Your task to perform on an android device: toggle priority inbox in the gmail app Image 0: 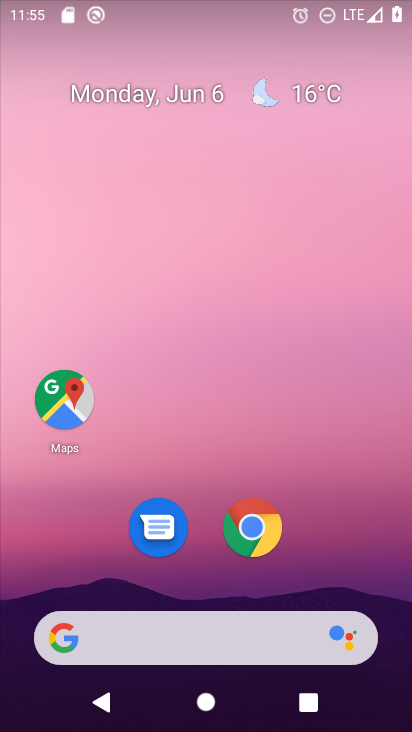
Step 0: drag from (361, 569) to (351, 80)
Your task to perform on an android device: toggle priority inbox in the gmail app Image 1: 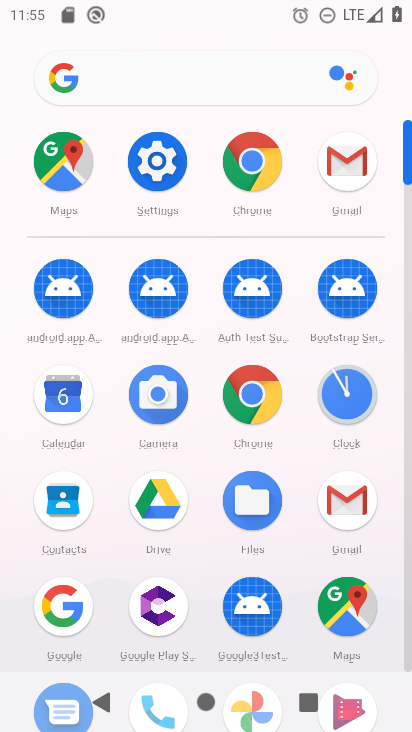
Step 1: click (354, 510)
Your task to perform on an android device: toggle priority inbox in the gmail app Image 2: 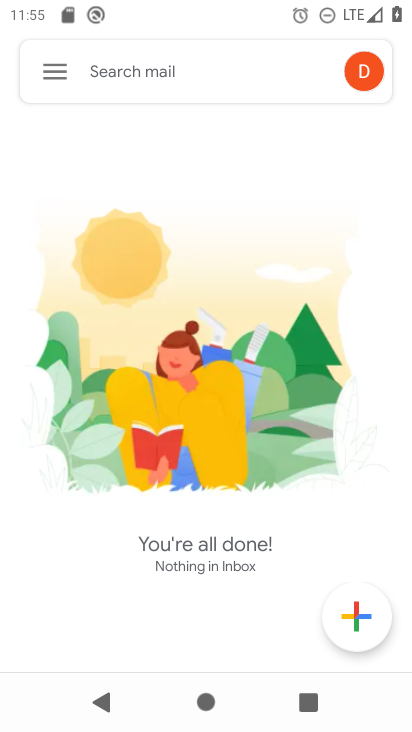
Step 2: click (48, 68)
Your task to perform on an android device: toggle priority inbox in the gmail app Image 3: 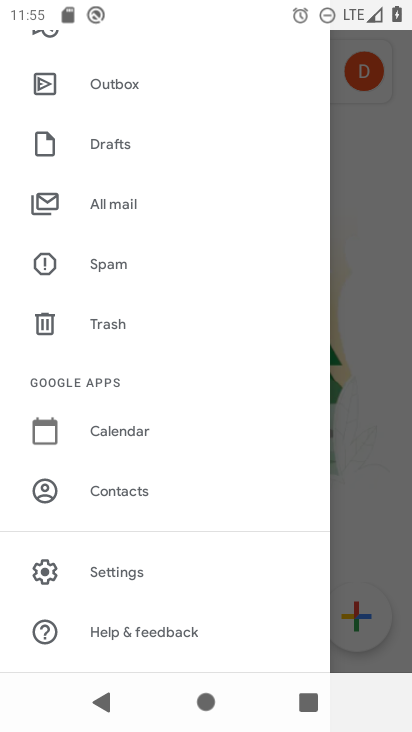
Step 3: drag from (237, 197) to (258, 335)
Your task to perform on an android device: toggle priority inbox in the gmail app Image 4: 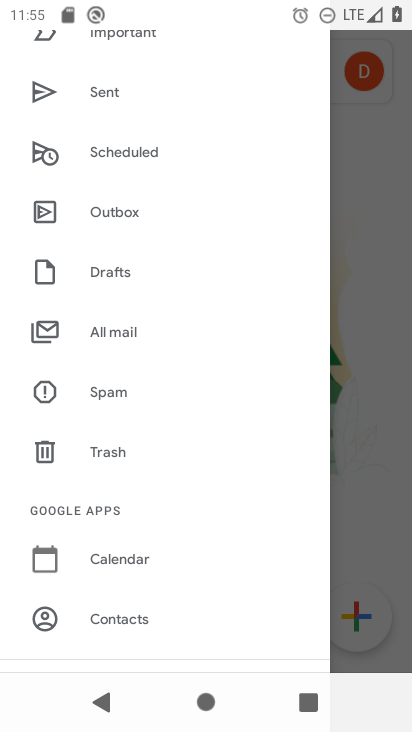
Step 4: drag from (253, 133) to (256, 320)
Your task to perform on an android device: toggle priority inbox in the gmail app Image 5: 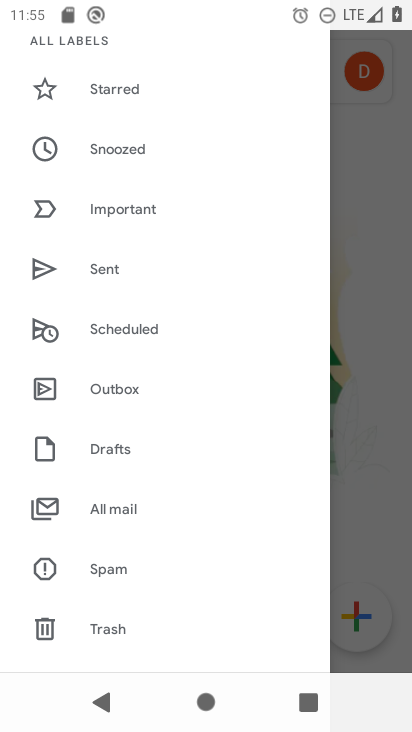
Step 5: drag from (240, 165) to (244, 340)
Your task to perform on an android device: toggle priority inbox in the gmail app Image 6: 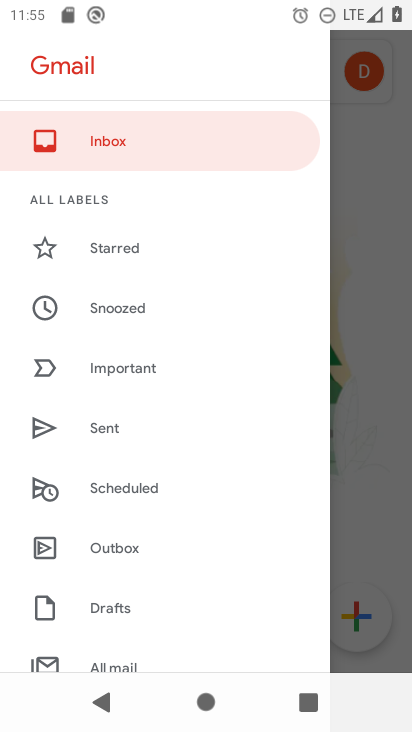
Step 6: drag from (230, 89) to (228, 334)
Your task to perform on an android device: toggle priority inbox in the gmail app Image 7: 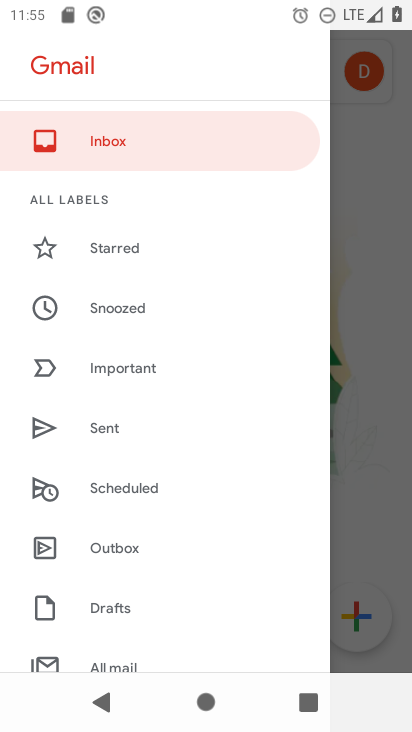
Step 7: drag from (234, 399) to (233, 220)
Your task to perform on an android device: toggle priority inbox in the gmail app Image 8: 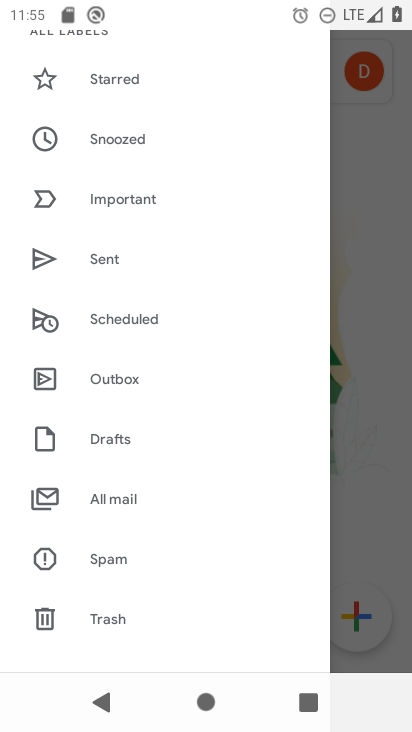
Step 8: drag from (232, 467) to (228, 305)
Your task to perform on an android device: toggle priority inbox in the gmail app Image 9: 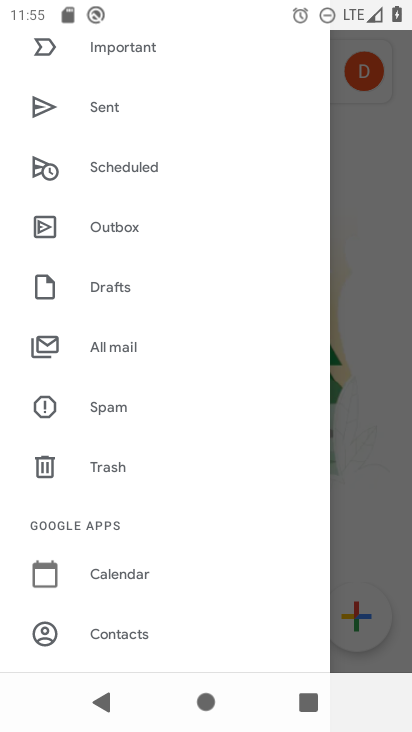
Step 9: drag from (240, 532) to (235, 424)
Your task to perform on an android device: toggle priority inbox in the gmail app Image 10: 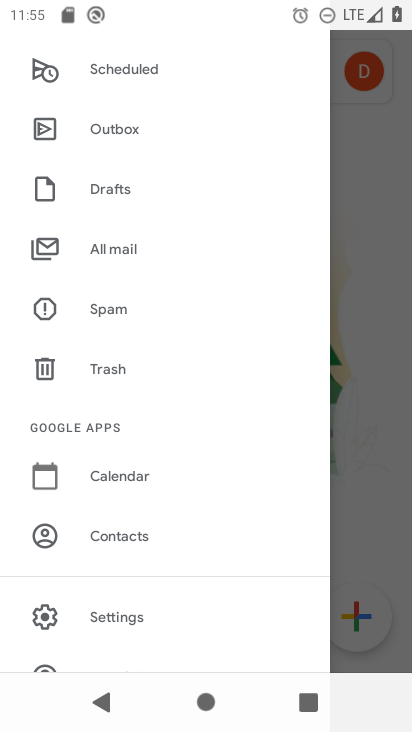
Step 10: click (193, 628)
Your task to perform on an android device: toggle priority inbox in the gmail app Image 11: 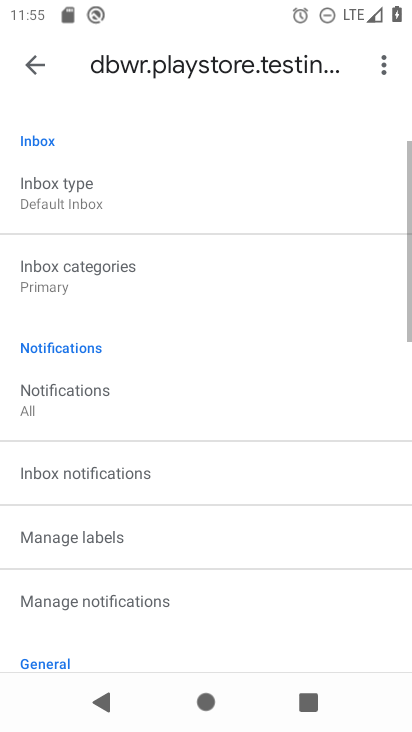
Step 11: drag from (237, 433) to (240, 326)
Your task to perform on an android device: toggle priority inbox in the gmail app Image 12: 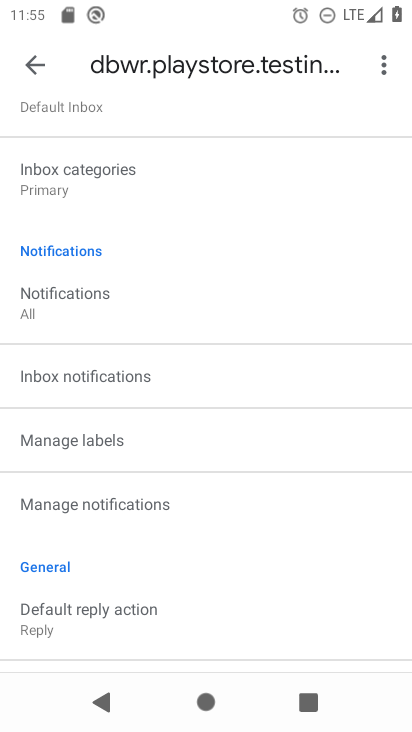
Step 12: drag from (265, 434) to (261, 316)
Your task to perform on an android device: toggle priority inbox in the gmail app Image 13: 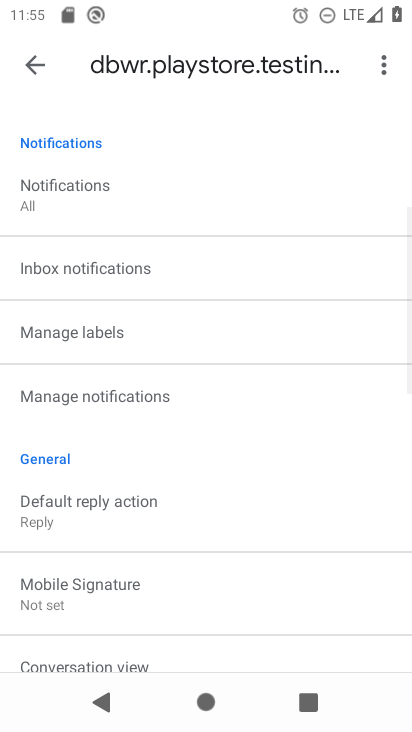
Step 13: drag from (262, 450) to (265, 307)
Your task to perform on an android device: toggle priority inbox in the gmail app Image 14: 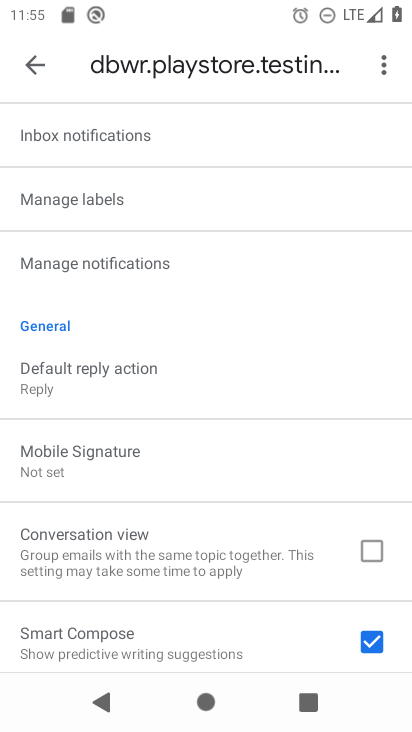
Step 14: drag from (275, 215) to (309, 389)
Your task to perform on an android device: toggle priority inbox in the gmail app Image 15: 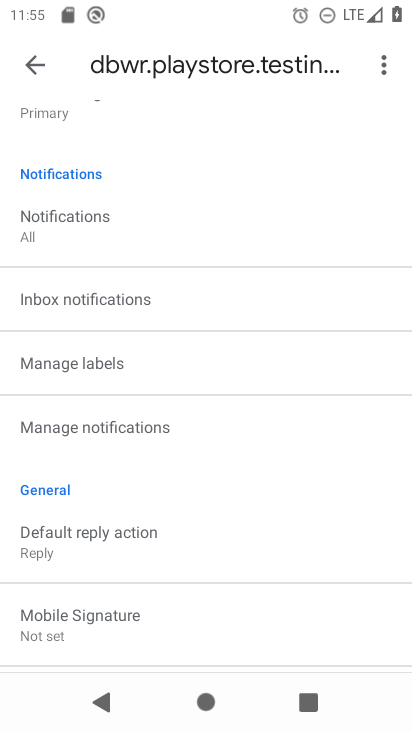
Step 15: drag from (289, 221) to (291, 366)
Your task to perform on an android device: toggle priority inbox in the gmail app Image 16: 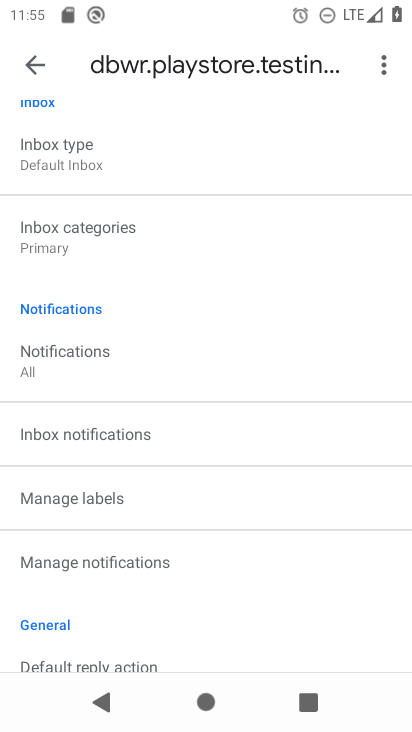
Step 16: drag from (272, 196) to (280, 351)
Your task to perform on an android device: toggle priority inbox in the gmail app Image 17: 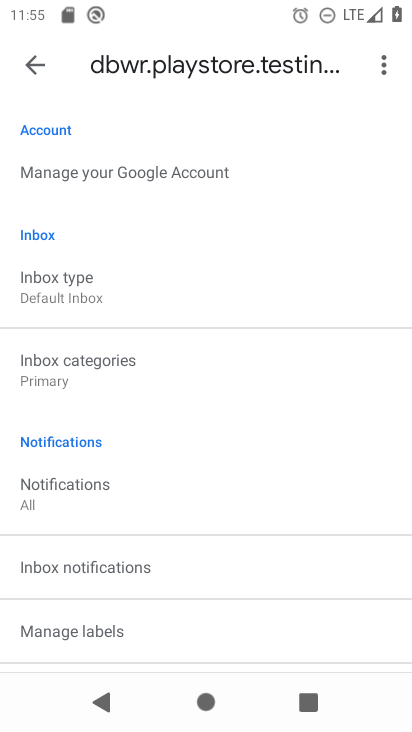
Step 17: click (136, 314)
Your task to perform on an android device: toggle priority inbox in the gmail app Image 18: 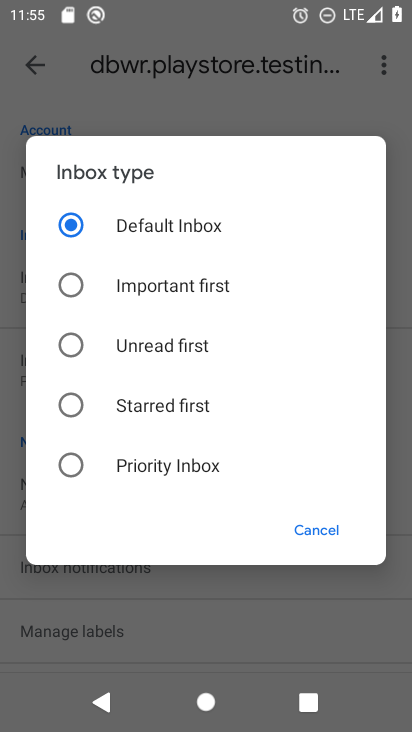
Step 18: click (159, 478)
Your task to perform on an android device: toggle priority inbox in the gmail app Image 19: 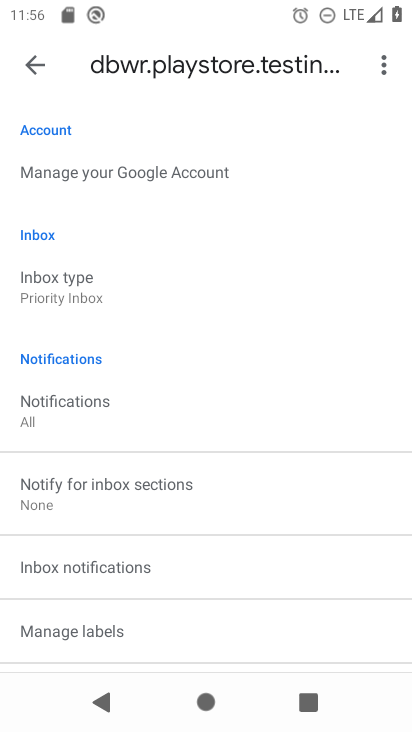
Step 19: task complete